Your task to perform on an android device: Open notification settings Image 0: 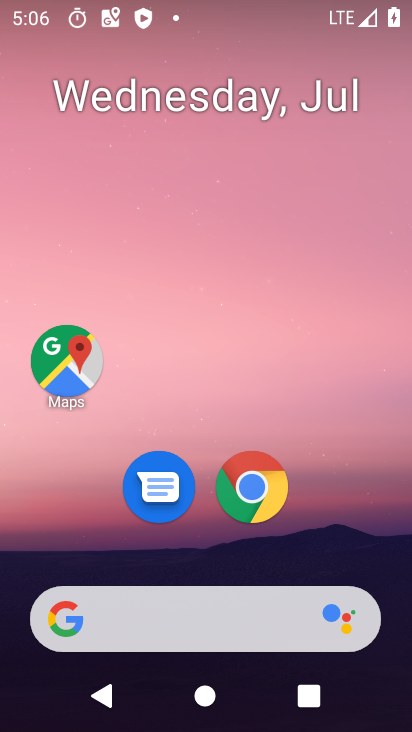
Step 0: drag from (212, 556) to (212, 21)
Your task to perform on an android device: Open notification settings Image 1: 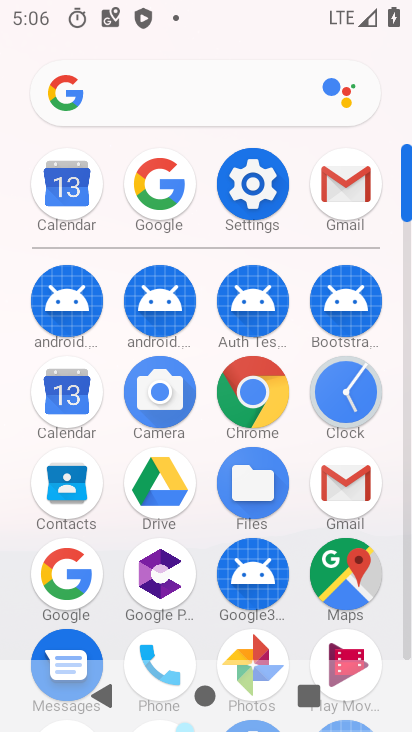
Step 1: click (254, 188)
Your task to perform on an android device: Open notification settings Image 2: 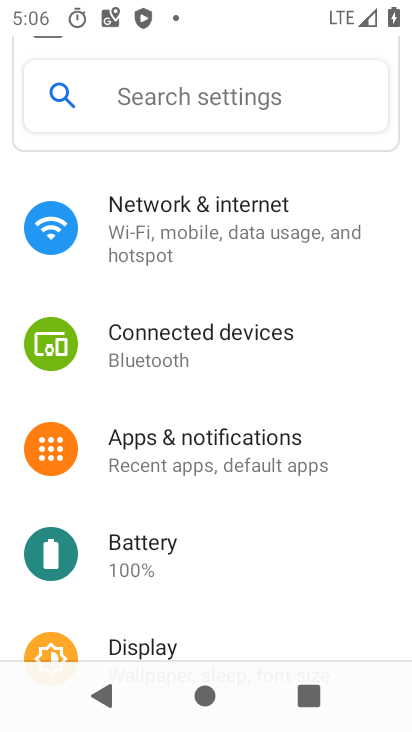
Step 2: click (170, 448)
Your task to perform on an android device: Open notification settings Image 3: 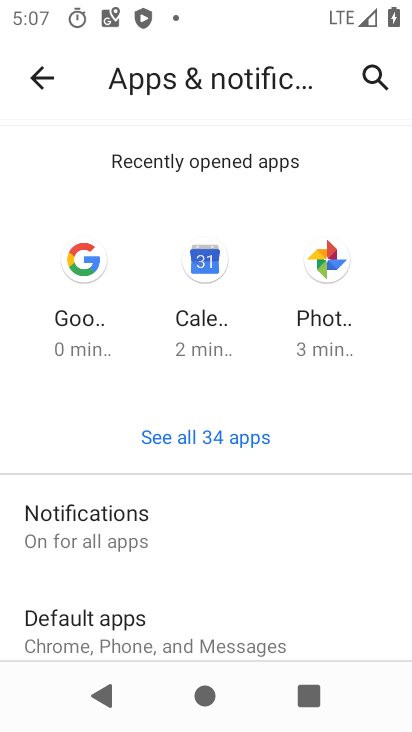
Step 3: click (123, 522)
Your task to perform on an android device: Open notification settings Image 4: 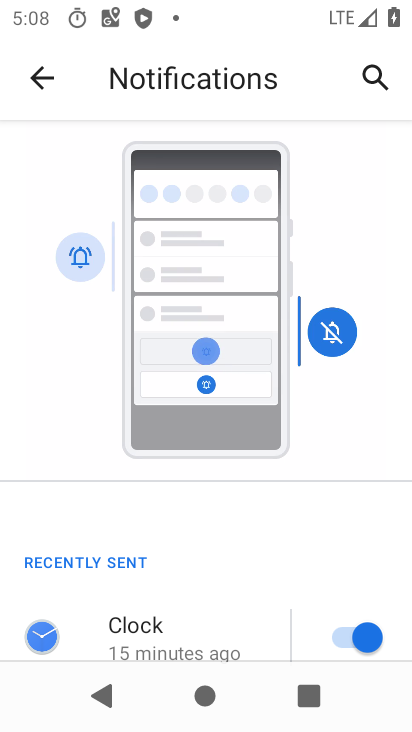
Step 4: task complete